Your task to perform on an android device: toggle priority inbox in the gmail app Image 0: 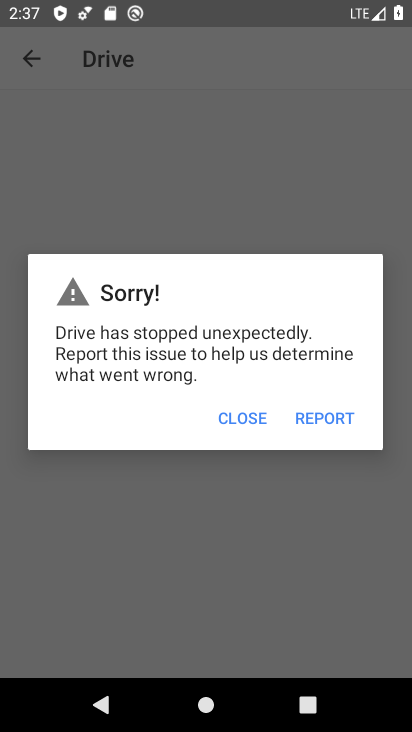
Step 0: press home button
Your task to perform on an android device: toggle priority inbox in the gmail app Image 1: 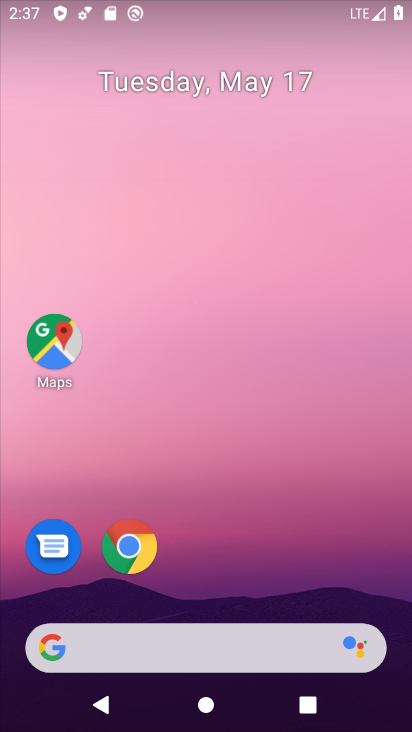
Step 1: drag from (192, 585) to (225, 142)
Your task to perform on an android device: toggle priority inbox in the gmail app Image 2: 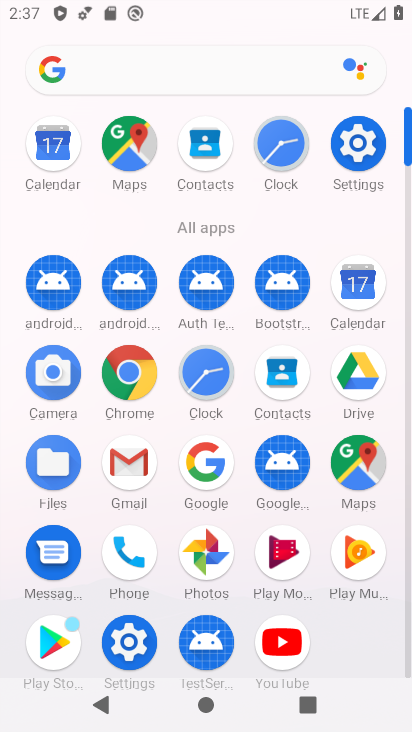
Step 2: click (132, 469)
Your task to perform on an android device: toggle priority inbox in the gmail app Image 3: 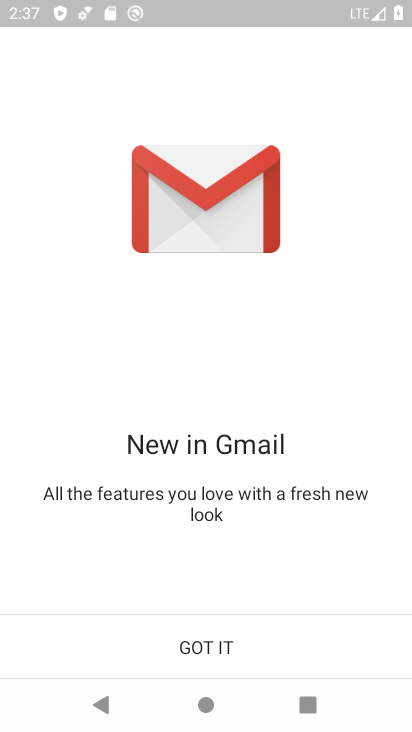
Step 3: click (192, 635)
Your task to perform on an android device: toggle priority inbox in the gmail app Image 4: 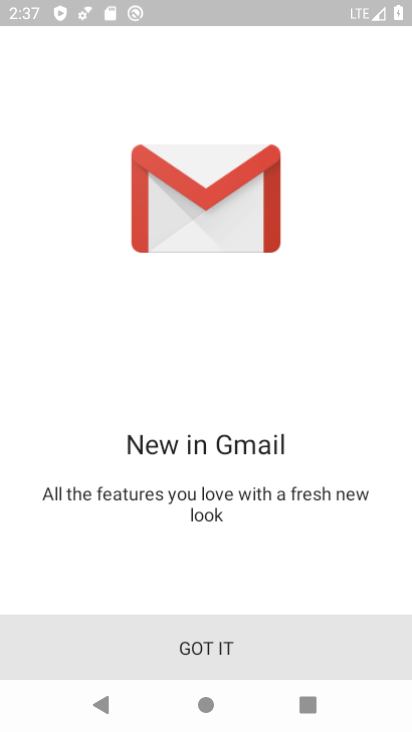
Step 4: click (192, 635)
Your task to perform on an android device: toggle priority inbox in the gmail app Image 5: 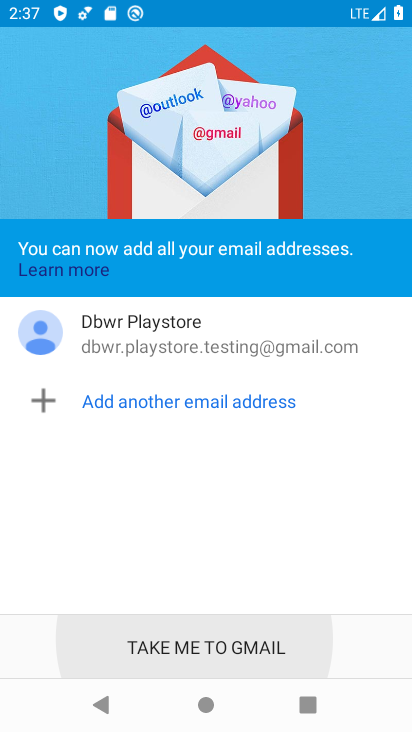
Step 5: click (192, 635)
Your task to perform on an android device: toggle priority inbox in the gmail app Image 6: 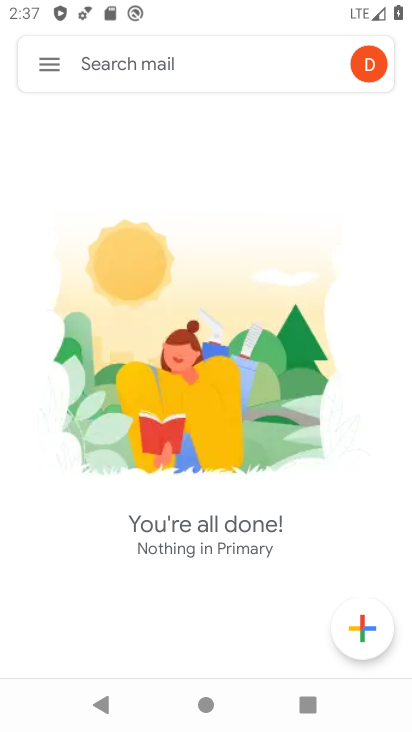
Step 6: click (44, 60)
Your task to perform on an android device: toggle priority inbox in the gmail app Image 7: 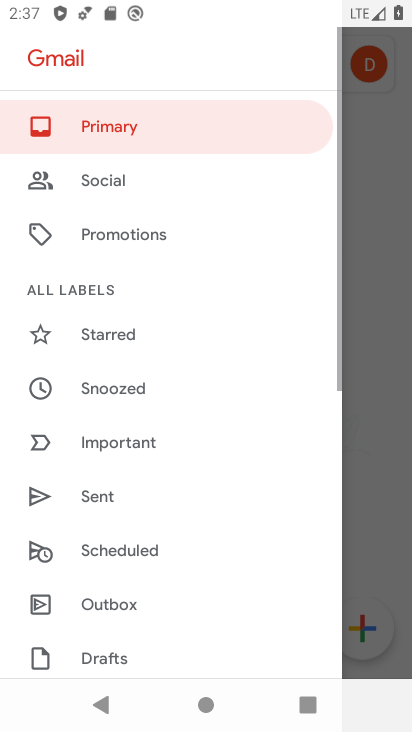
Step 7: drag from (198, 553) to (149, 219)
Your task to perform on an android device: toggle priority inbox in the gmail app Image 8: 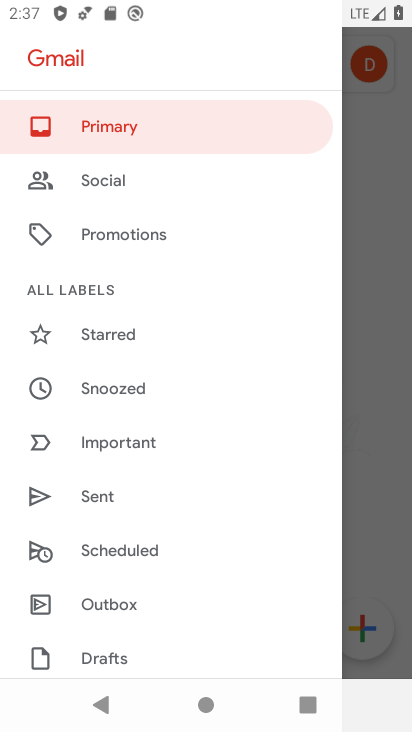
Step 8: drag from (74, 639) to (82, 294)
Your task to perform on an android device: toggle priority inbox in the gmail app Image 9: 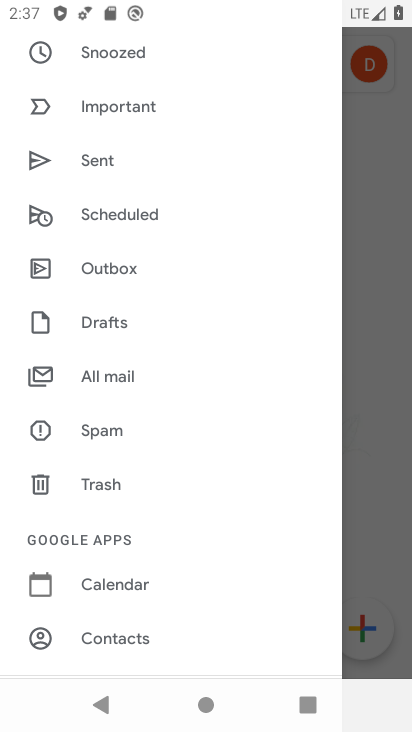
Step 9: drag from (106, 607) to (94, 226)
Your task to perform on an android device: toggle priority inbox in the gmail app Image 10: 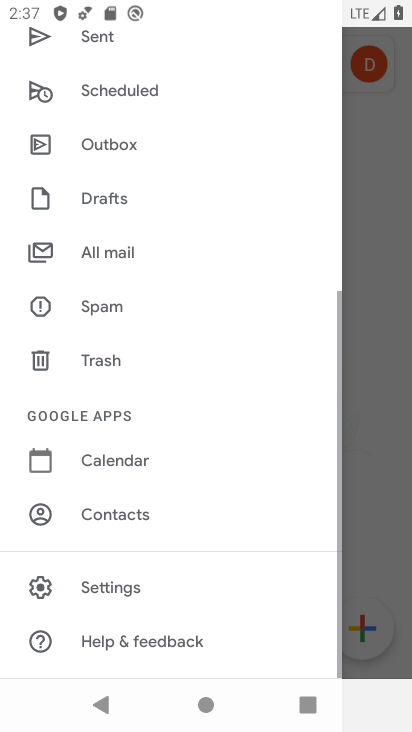
Step 10: click (122, 579)
Your task to perform on an android device: toggle priority inbox in the gmail app Image 11: 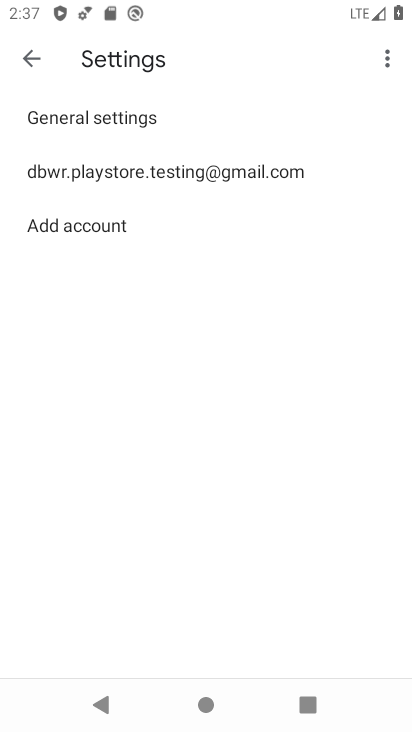
Step 11: click (93, 154)
Your task to perform on an android device: toggle priority inbox in the gmail app Image 12: 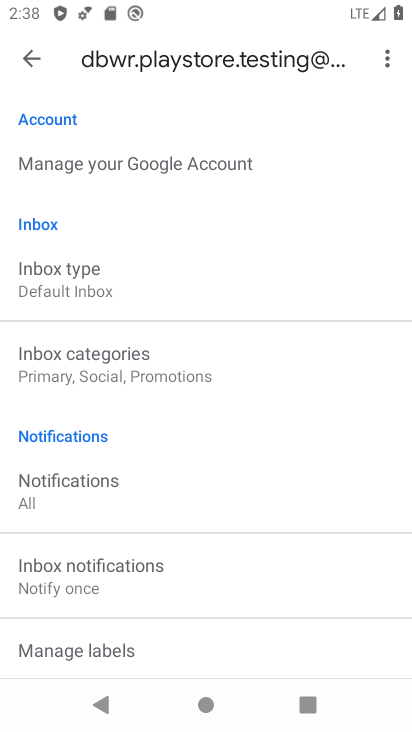
Step 12: click (51, 262)
Your task to perform on an android device: toggle priority inbox in the gmail app Image 13: 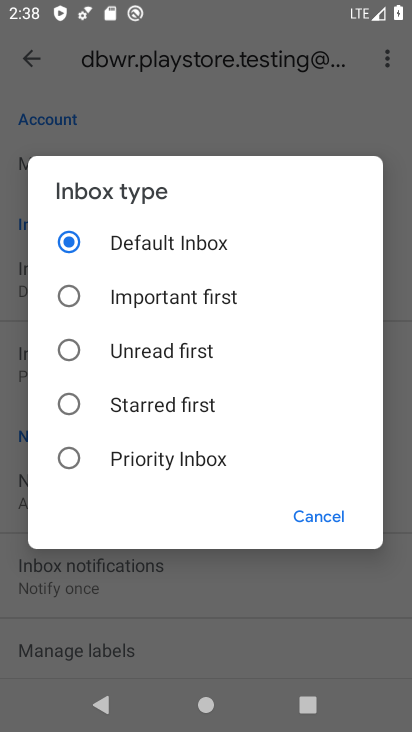
Step 13: click (129, 452)
Your task to perform on an android device: toggle priority inbox in the gmail app Image 14: 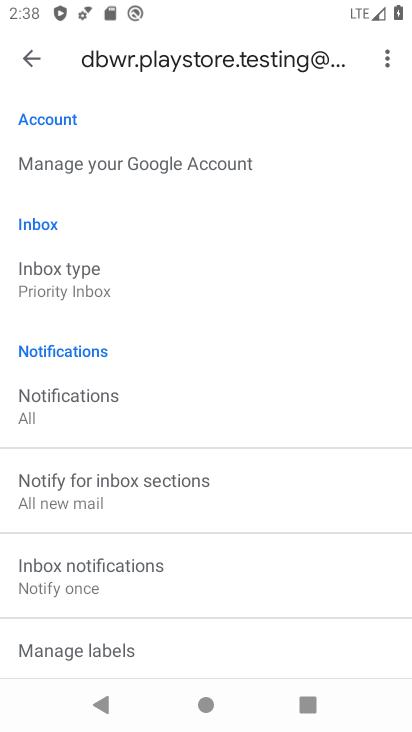
Step 14: task complete